Your task to perform on an android device: Show me recent news Image 0: 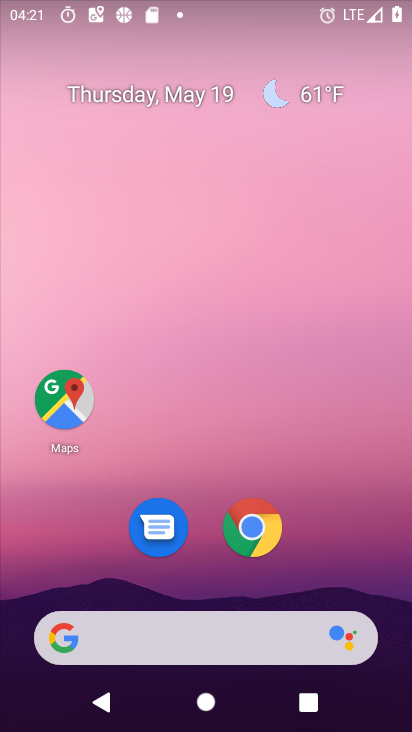
Step 0: click (164, 650)
Your task to perform on an android device: Show me recent news Image 1: 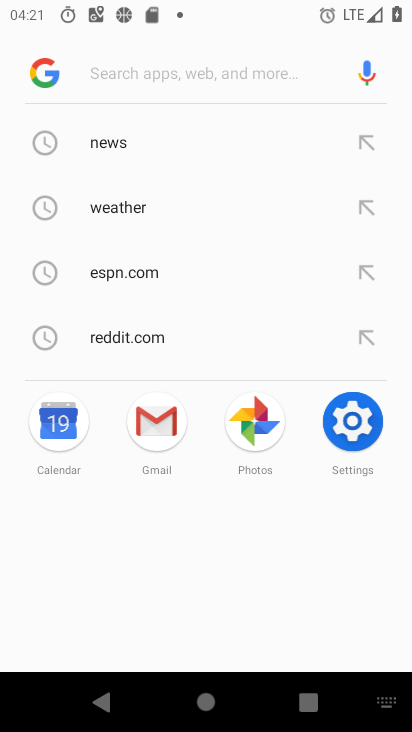
Step 1: type "recent news"
Your task to perform on an android device: Show me recent news Image 2: 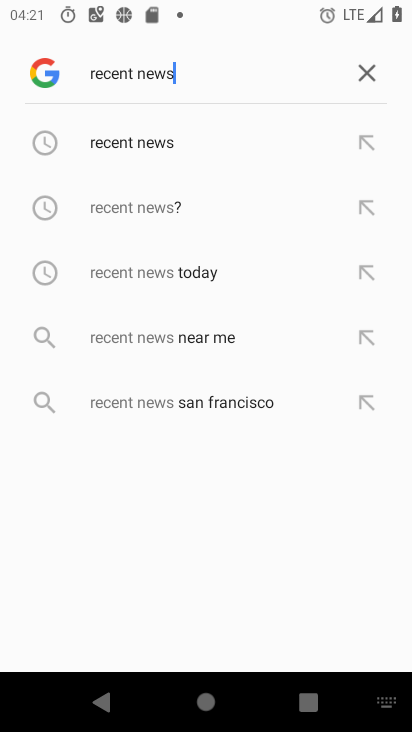
Step 2: click (134, 144)
Your task to perform on an android device: Show me recent news Image 3: 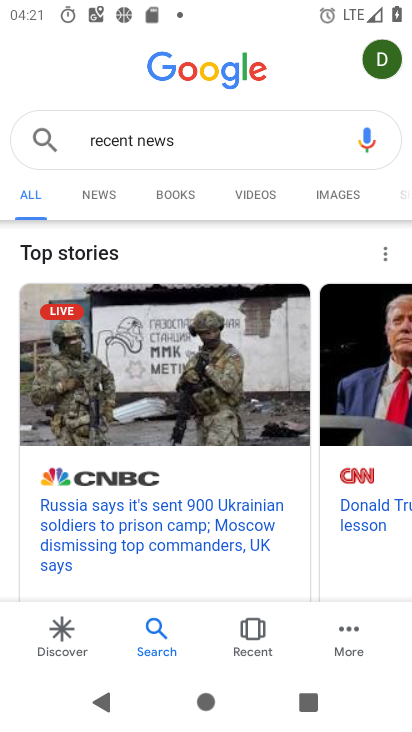
Step 3: task complete